Your task to perform on an android device: toggle show notifications on the lock screen Image 0: 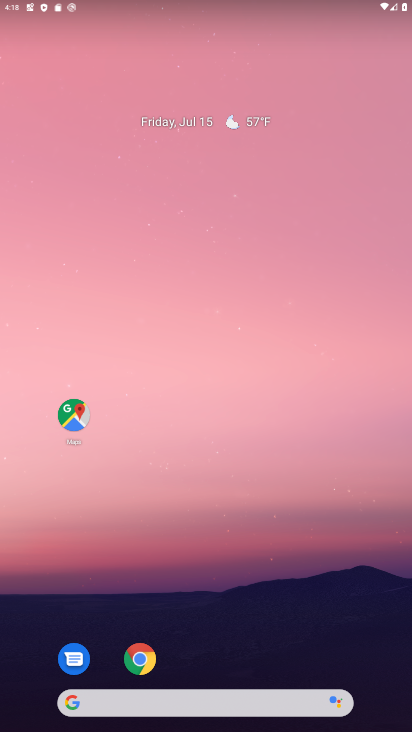
Step 0: drag from (283, 628) to (213, 57)
Your task to perform on an android device: toggle show notifications on the lock screen Image 1: 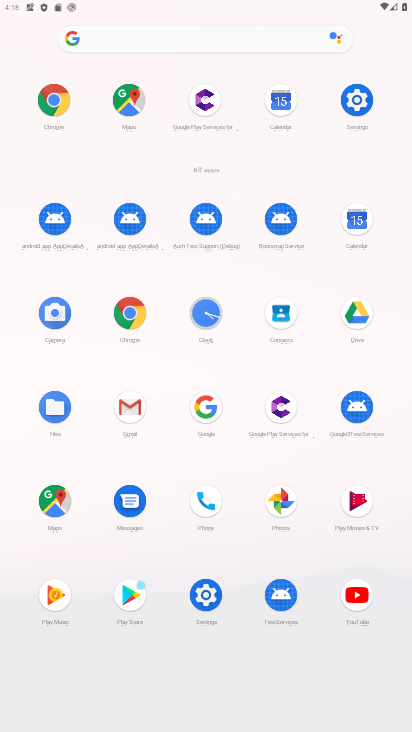
Step 1: click (363, 97)
Your task to perform on an android device: toggle show notifications on the lock screen Image 2: 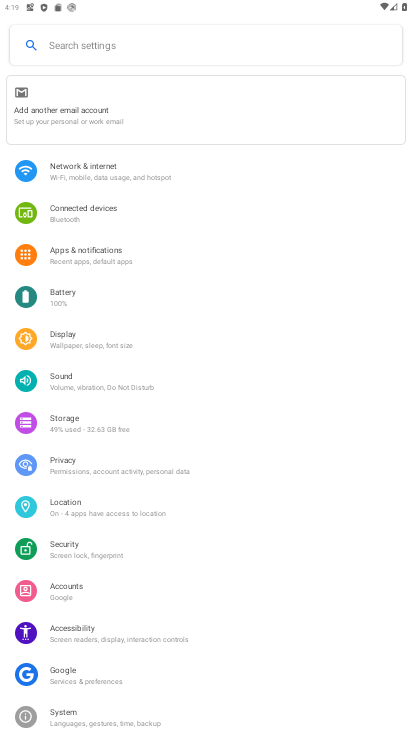
Step 2: click (240, 248)
Your task to perform on an android device: toggle show notifications on the lock screen Image 3: 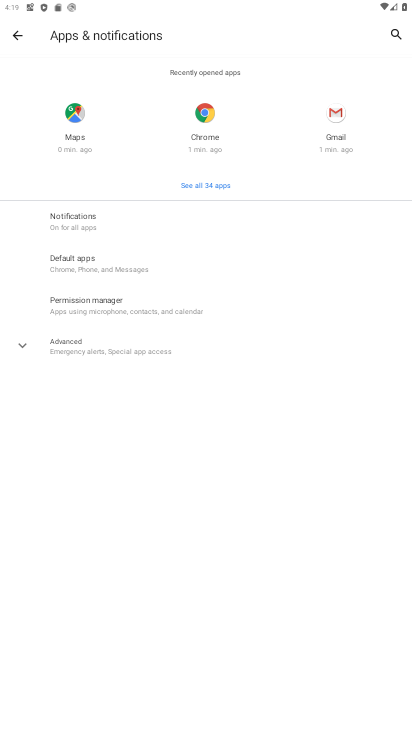
Step 3: click (173, 224)
Your task to perform on an android device: toggle show notifications on the lock screen Image 4: 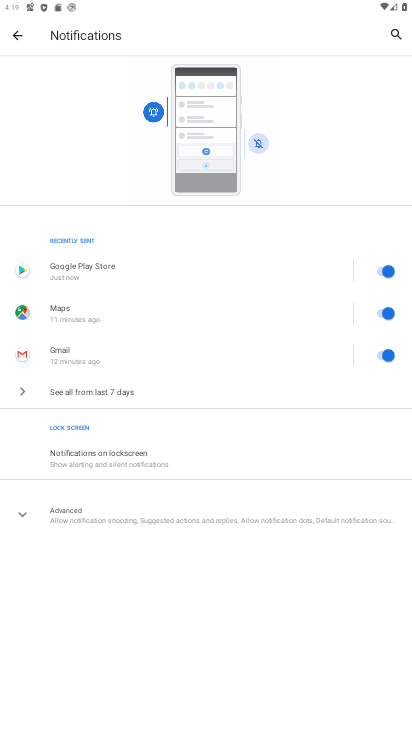
Step 4: click (268, 458)
Your task to perform on an android device: toggle show notifications on the lock screen Image 5: 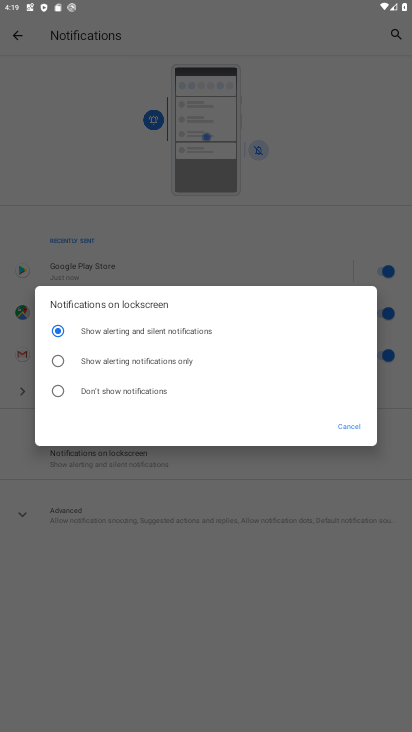
Step 5: click (220, 369)
Your task to perform on an android device: toggle show notifications on the lock screen Image 6: 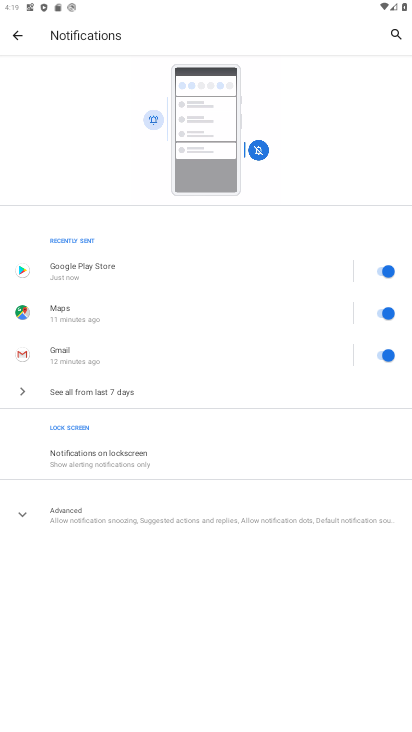
Step 6: task complete